Your task to perform on an android device: open wifi settings Image 0: 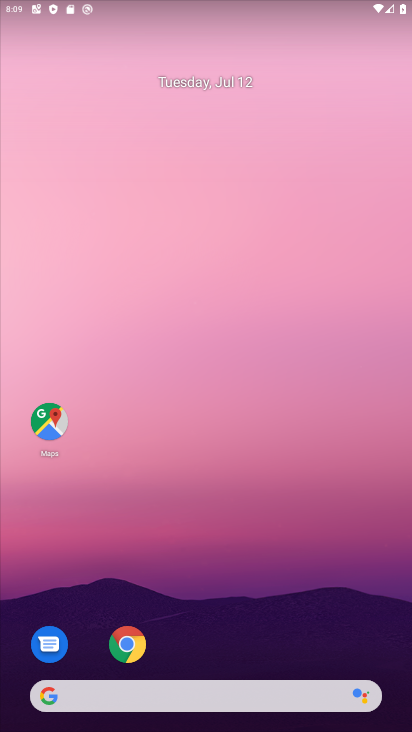
Step 0: drag from (177, 624) to (298, 42)
Your task to perform on an android device: open wifi settings Image 1: 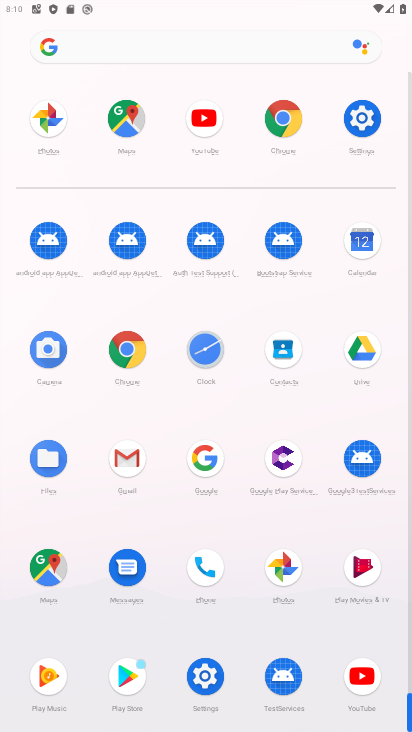
Step 1: click (198, 662)
Your task to perform on an android device: open wifi settings Image 2: 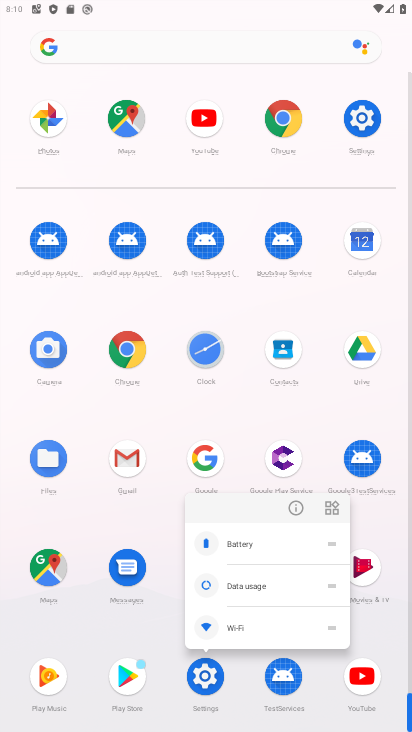
Step 2: click (295, 506)
Your task to perform on an android device: open wifi settings Image 3: 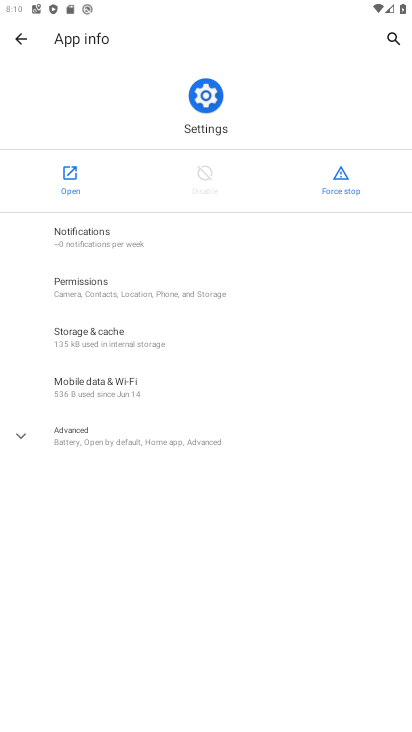
Step 3: click (91, 183)
Your task to perform on an android device: open wifi settings Image 4: 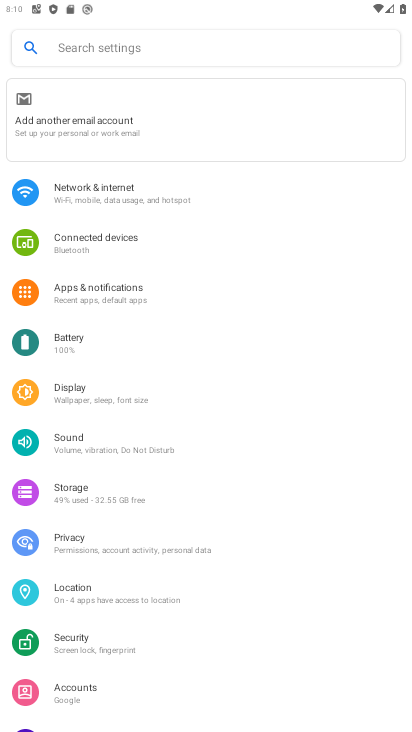
Step 4: drag from (195, 631) to (272, 206)
Your task to perform on an android device: open wifi settings Image 5: 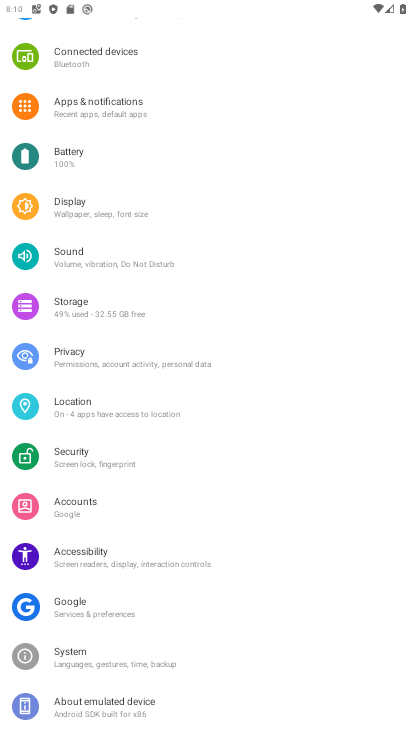
Step 5: drag from (236, 209) to (212, 674)
Your task to perform on an android device: open wifi settings Image 6: 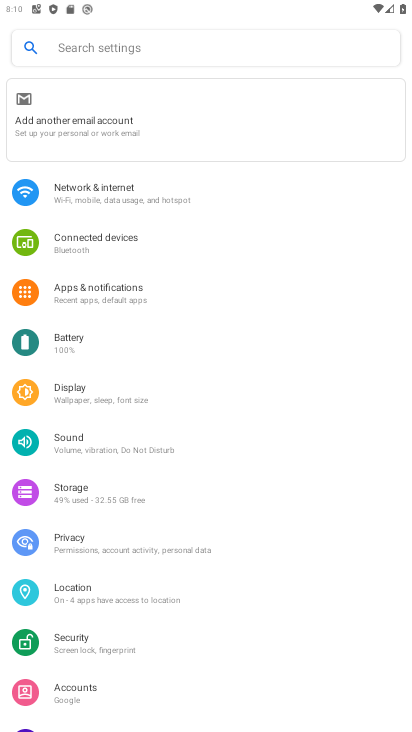
Step 6: click (104, 188)
Your task to perform on an android device: open wifi settings Image 7: 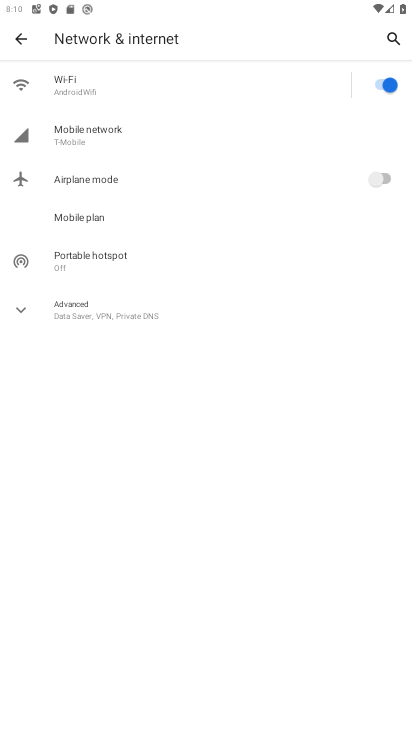
Step 7: click (166, 77)
Your task to perform on an android device: open wifi settings Image 8: 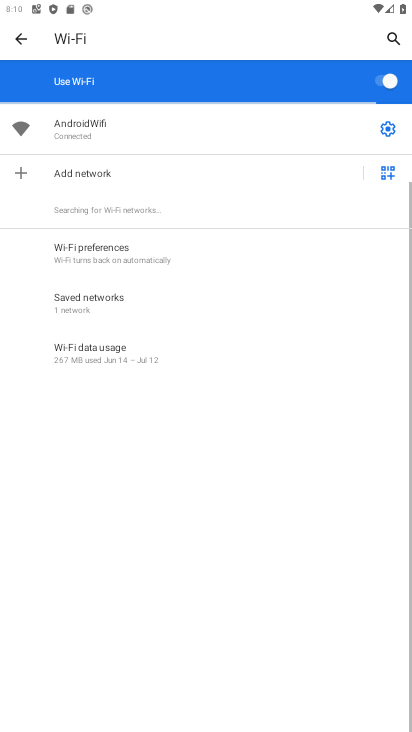
Step 8: click (387, 126)
Your task to perform on an android device: open wifi settings Image 9: 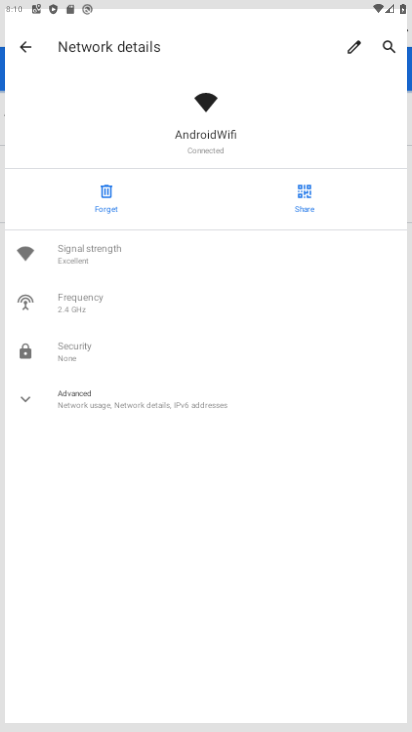
Step 9: task complete